Your task to perform on an android device: all mails in gmail Image 0: 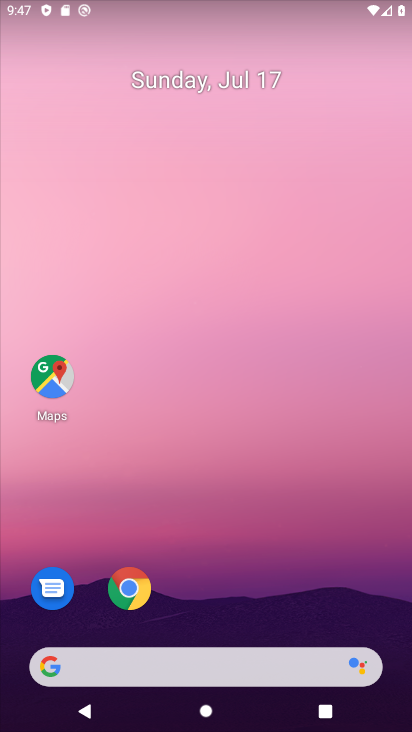
Step 0: drag from (183, 639) to (212, 89)
Your task to perform on an android device: all mails in gmail Image 1: 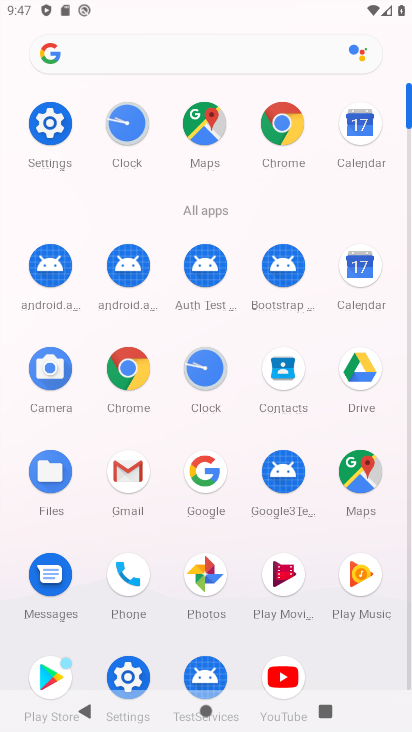
Step 1: click (125, 473)
Your task to perform on an android device: all mails in gmail Image 2: 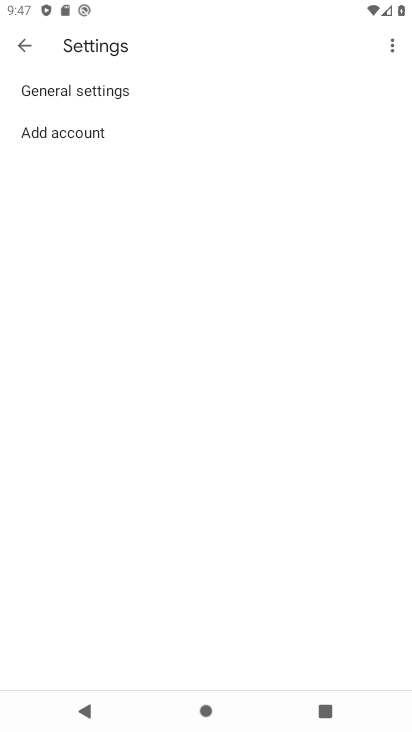
Step 2: click (14, 43)
Your task to perform on an android device: all mails in gmail Image 3: 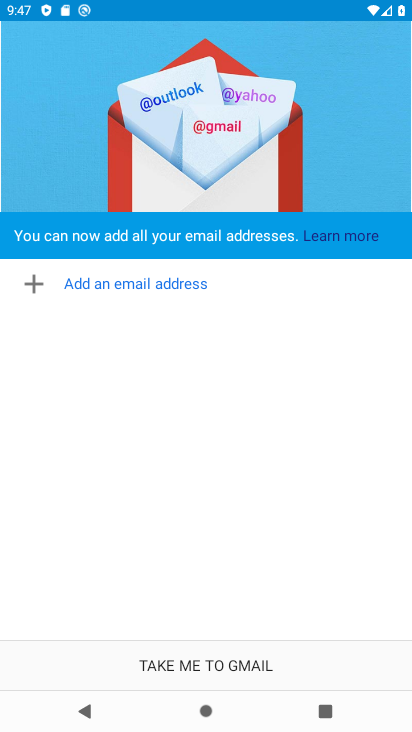
Step 3: click (214, 670)
Your task to perform on an android device: all mails in gmail Image 4: 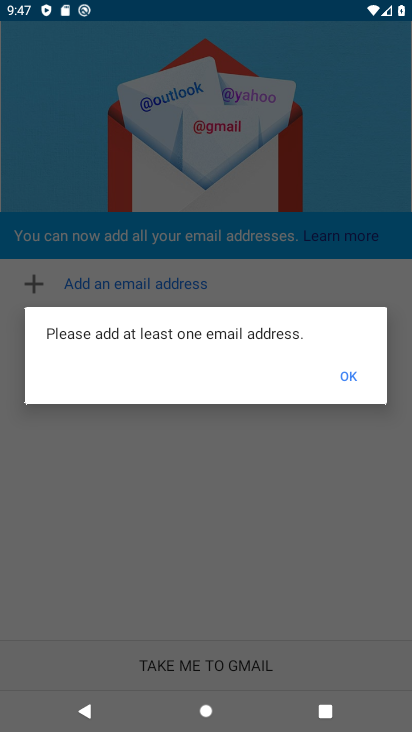
Step 4: task complete